Your task to perform on an android device: turn on wifi Image 0: 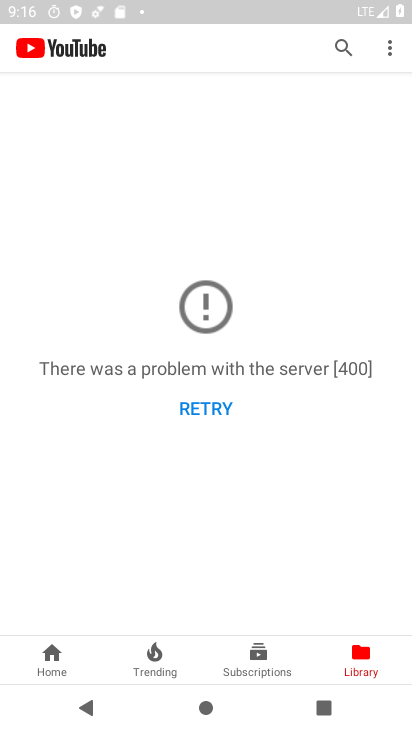
Step 0: press home button
Your task to perform on an android device: turn on wifi Image 1: 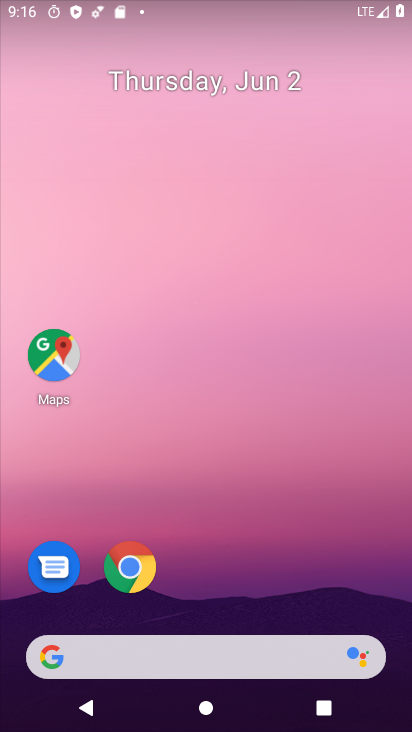
Step 1: drag from (351, 583) to (306, 95)
Your task to perform on an android device: turn on wifi Image 2: 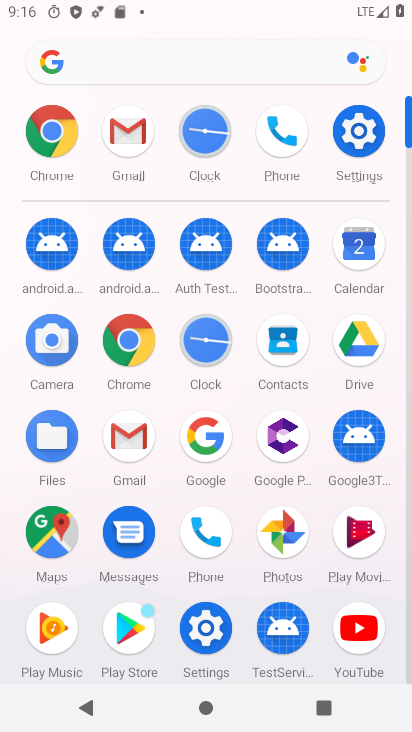
Step 2: click (346, 147)
Your task to perform on an android device: turn on wifi Image 3: 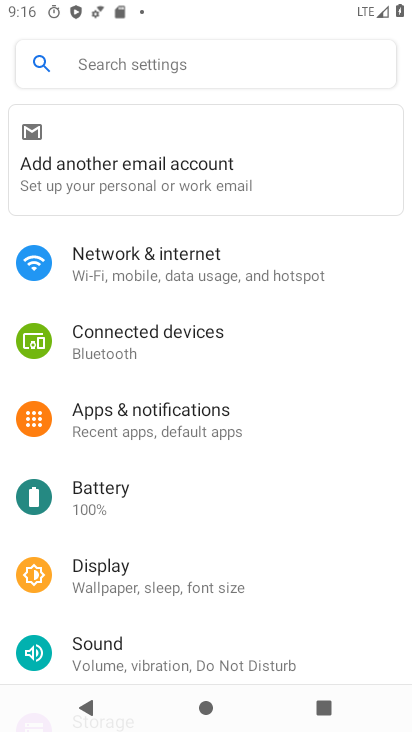
Step 3: click (222, 262)
Your task to perform on an android device: turn on wifi Image 4: 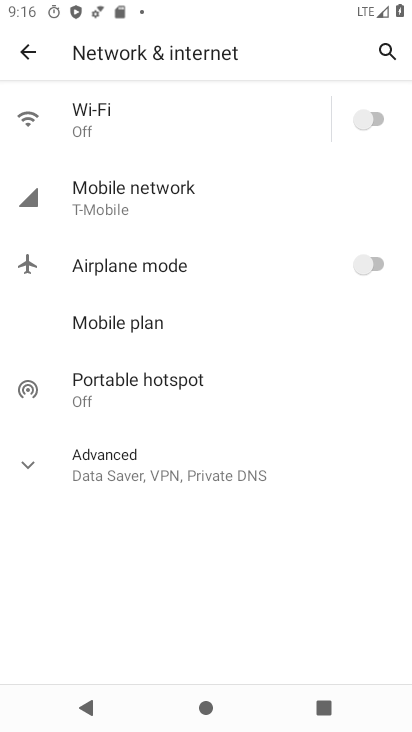
Step 4: click (135, 122)
Your task to perform on an android device: turn on wifi Image 5: 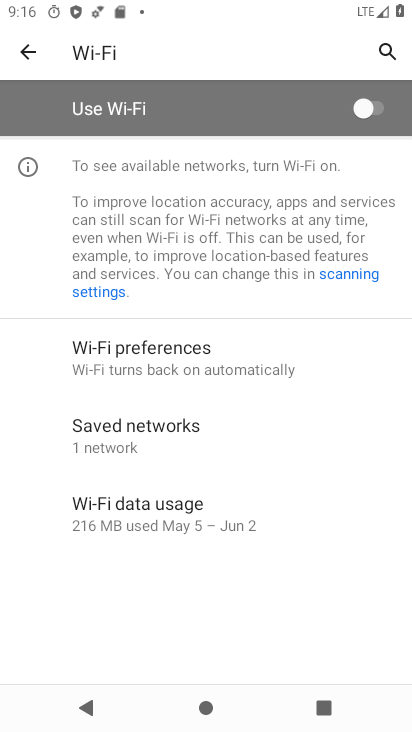
Step 5: task complete